Your task to perform on an android device: Show me popular videos on Youtube Image 0: 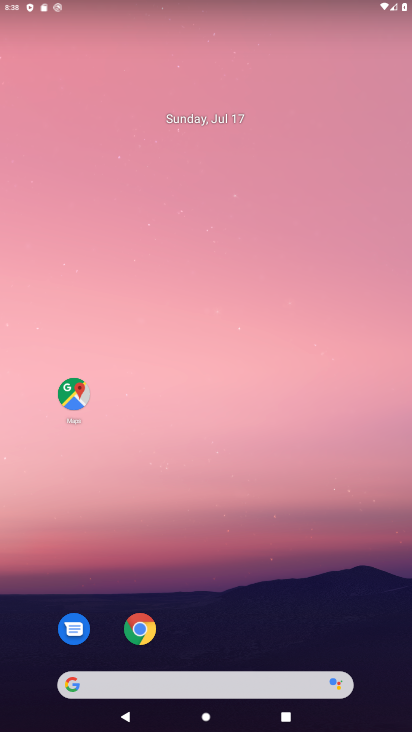
Step 0: drag from (239, 661) to (310, 107)
Your task to perform on an android device: Show me popular videos on Youtube Image 1: 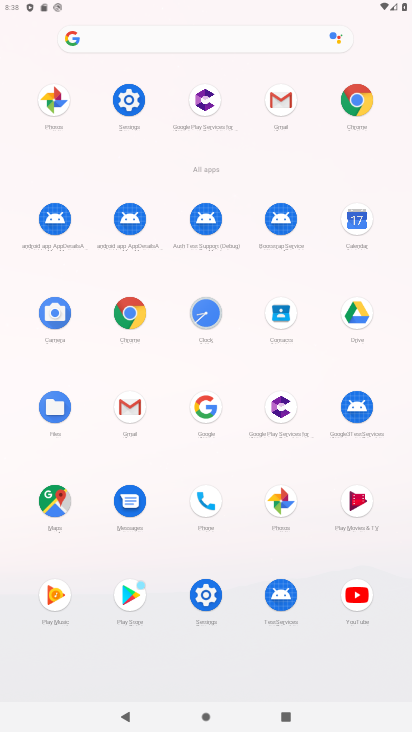
Step 1: click (372, 614)
Your task to perform on an android device: Show me popular videos on Youtube Image 2: 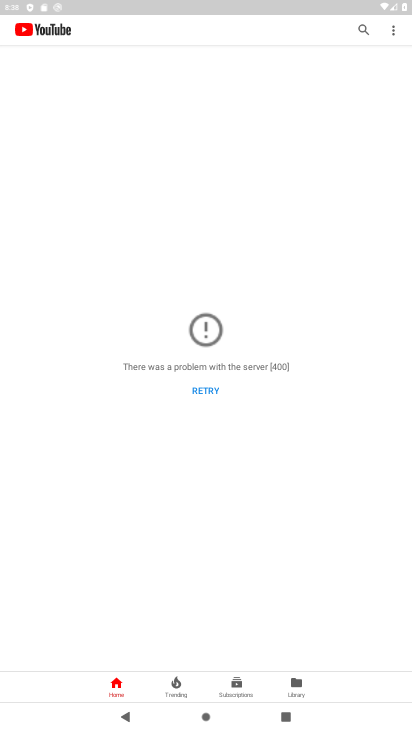
Step 2: task complete